Your task to perform on an android device: Go to Yahoo.com Image 0: 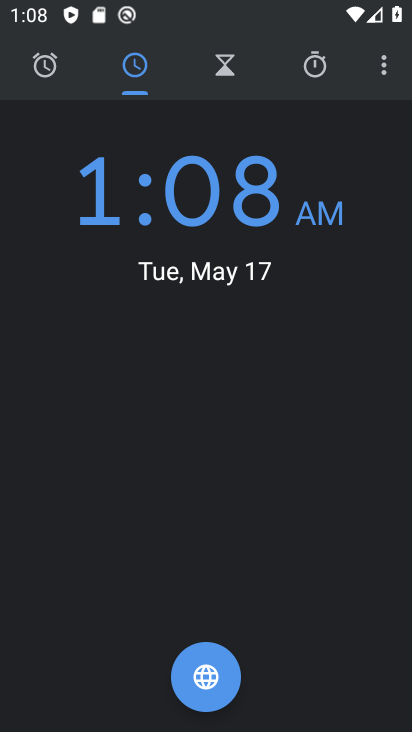
Step 0: press home button
Your task to perform on an android device: Go to Yahoo.com Image 1: 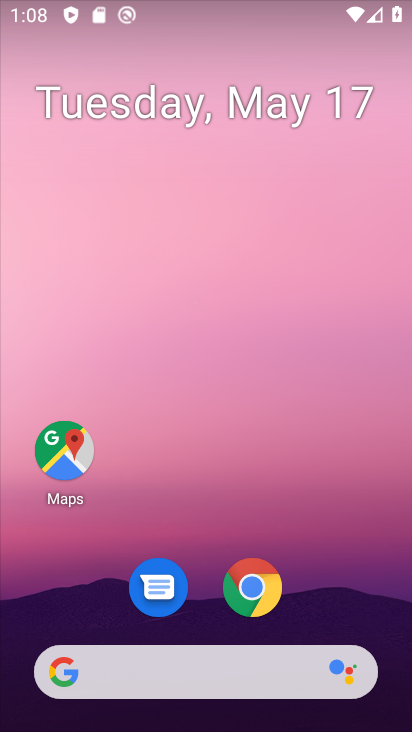
Step 1: drag from (370, 572) to (388, 114)
Your task to perform on an android device: Go to Yahoo.com Image 2: 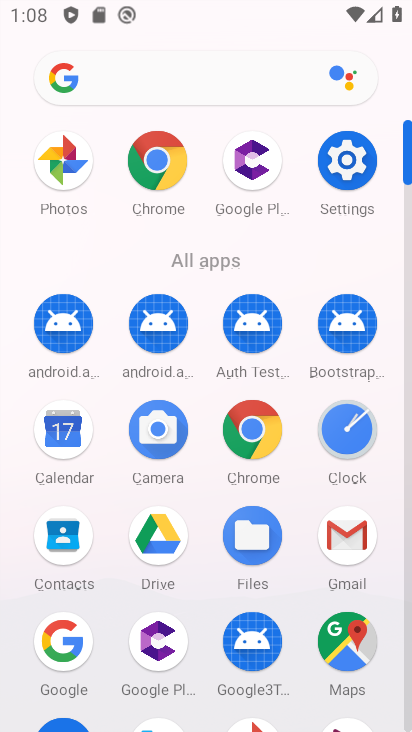
Step 2: click (173, 173)
Your task to perform on an android device: Go to Yahoo.com Image 3: 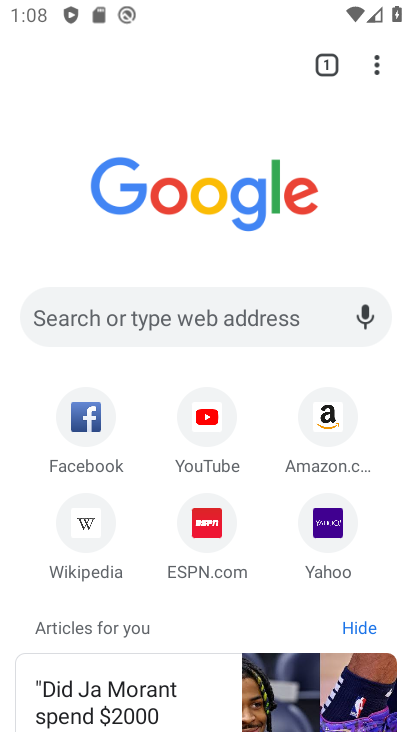
Step 3: click (155, 315)
Your task to perform on an android device: Go to Yahoo.com Image 4: 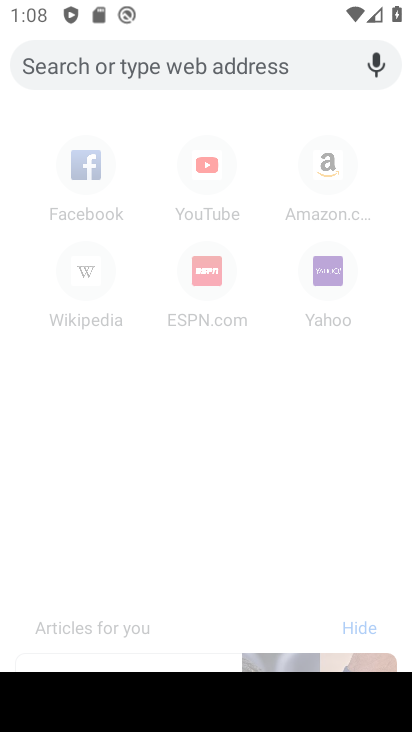
Step 4: type "yahoo.com"
Your task to perform on an android device: Go to Yahoo.com Image 5: 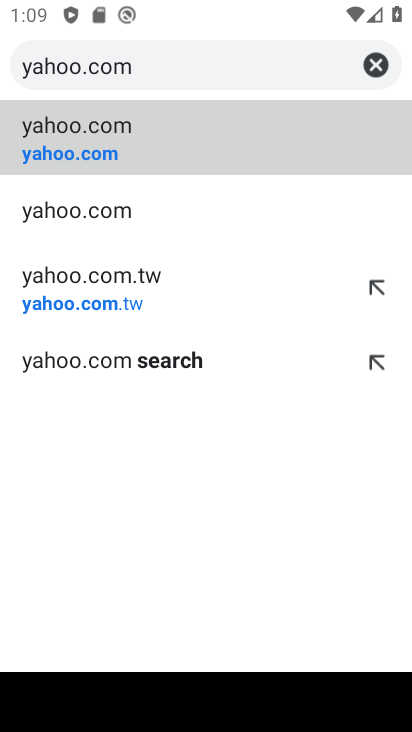
Step 5: click (166, 156)
Your task to perform on an android device: Go to Yahoo.com Image 6: 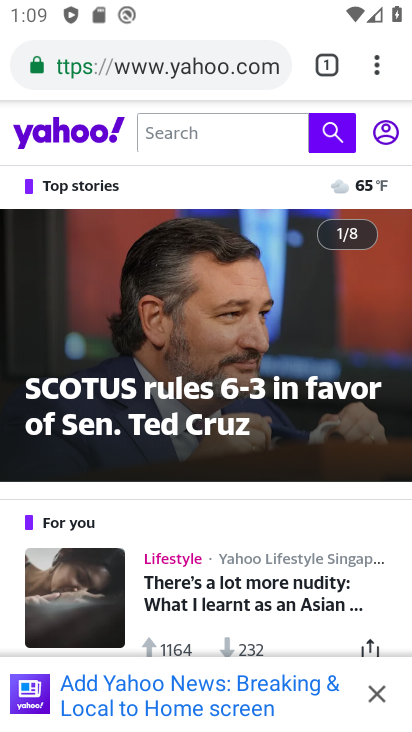
Step 6: task complete